Your task to perform on an android device: toggle improve location accuracy Image 0: 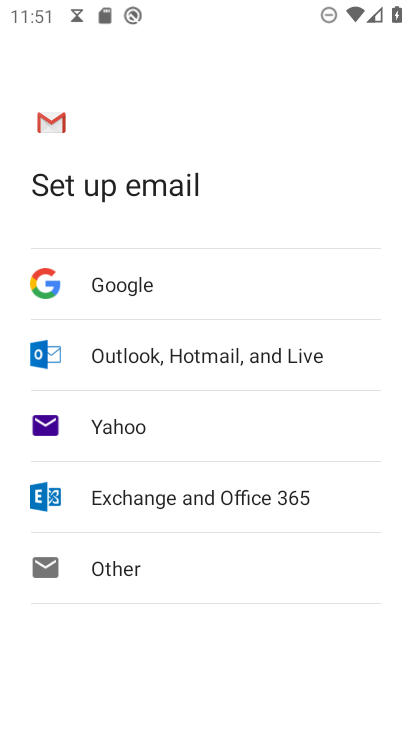
Step 0: press home button
Your task to perform on an android device: toggle improve location accuracy Image 1: 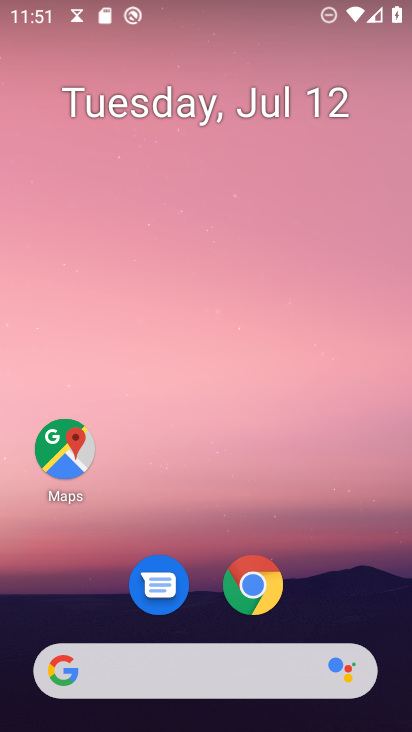
Step 1: drag from (237, 667) to (230, 75)
Your task to perform on an android device: toggle improve location accuracy Image 2: 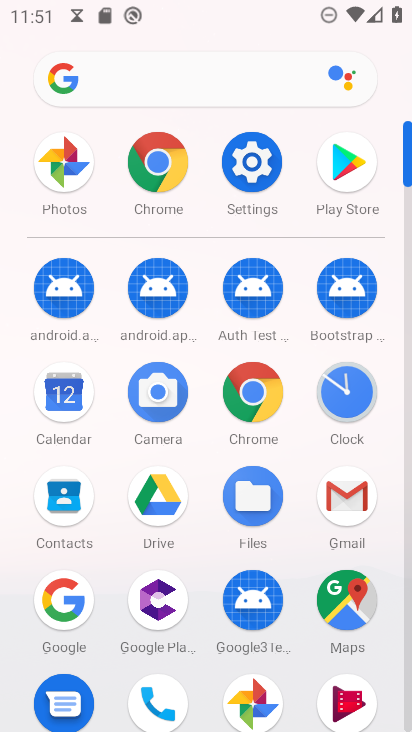
Step 2: click (260, 163)
Your task to perform on an android device: toggle improve location accuracy Image 3: 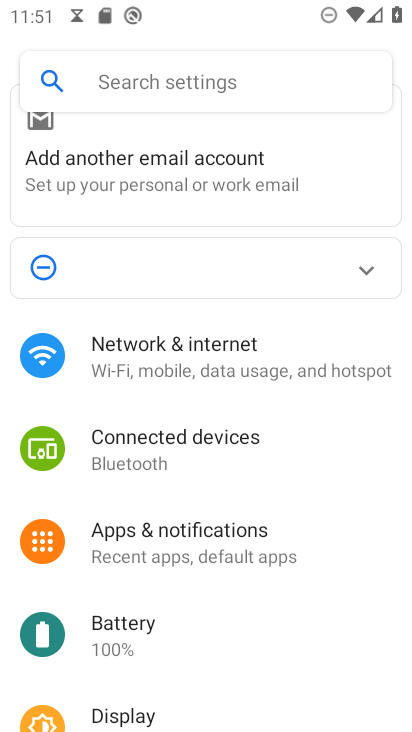
Step 3: drag from (240, 642) to (287, 75)
Your task to perform on an android device: toggle improve location accuracy Image 4: 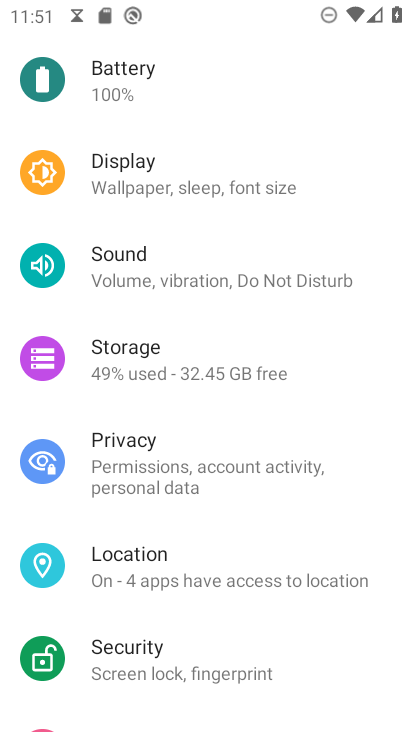
Step 4: click (152, 563)
Your task to perform on an android device: toggle improve location accuracy Image 5: 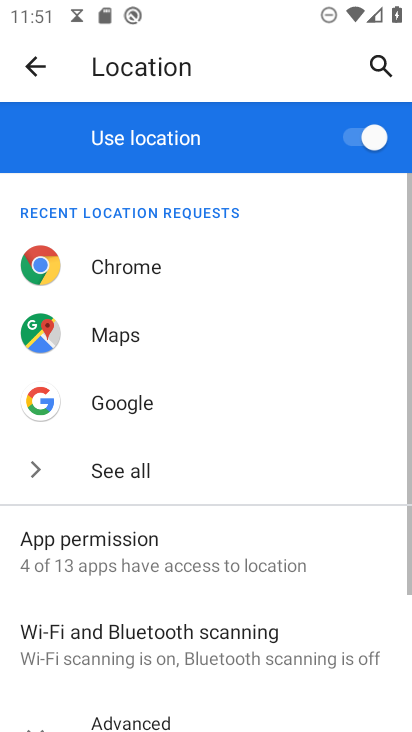
Step 5: drag from (149, 621) to (212, 237)
Your task to perform on an android device: toggle improve location accuracy Image 6: 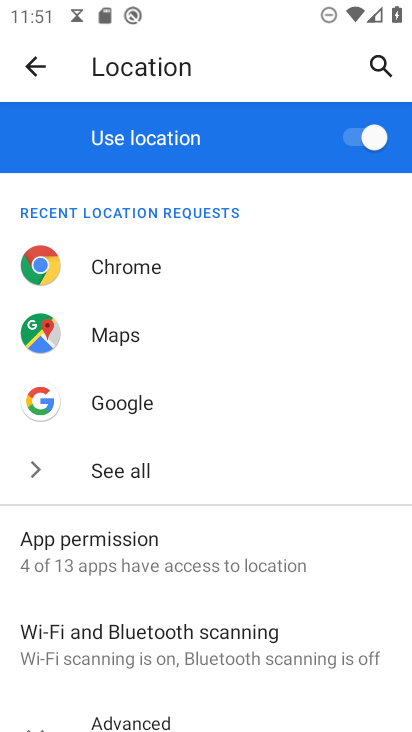
Step 6: drag from (246, 603) to (292, 54)
Your task to perform on an android device: toggle improve location accuracy Image 7: 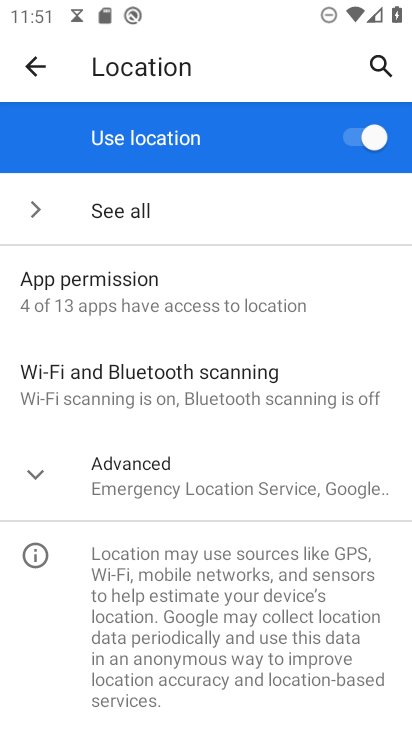
Step 7: click (125, 469)
Your task to perform on an android device: toggle improve location accuracy Image 8: 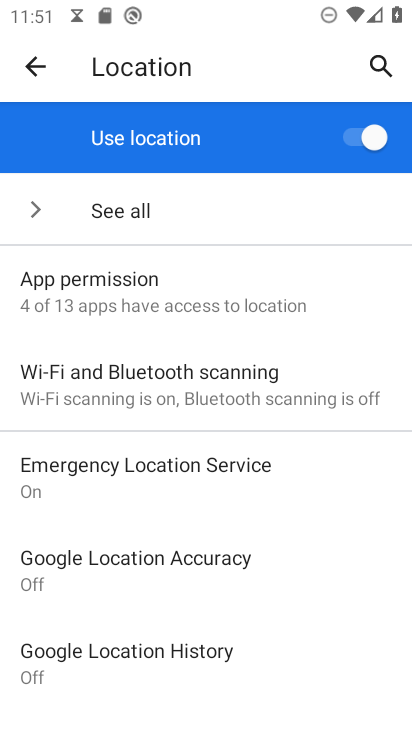
Step 8: click (179, 567)
Your task to perform on an android device: toggle improve location accuracy Image 9: 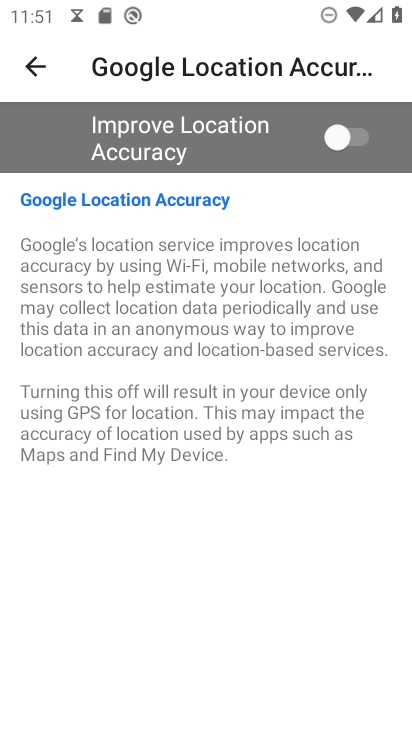
Step 9: click (355, 134)
Your task to perform on an android device: toggle improve location accuracy Image 10: 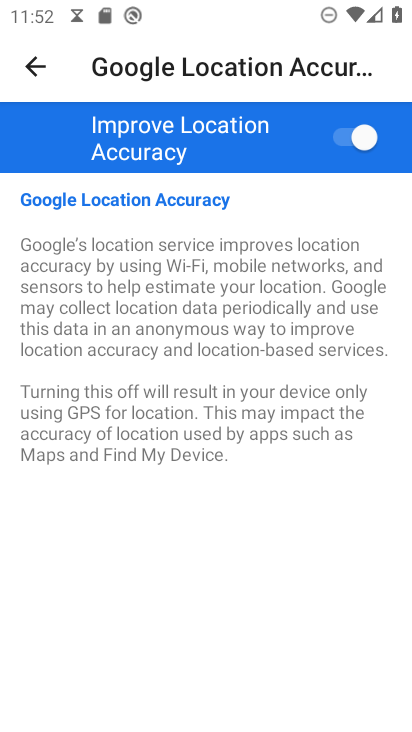
Step 10: task complete